Your task to perform on an android device: Open Wikipedia Image 0: 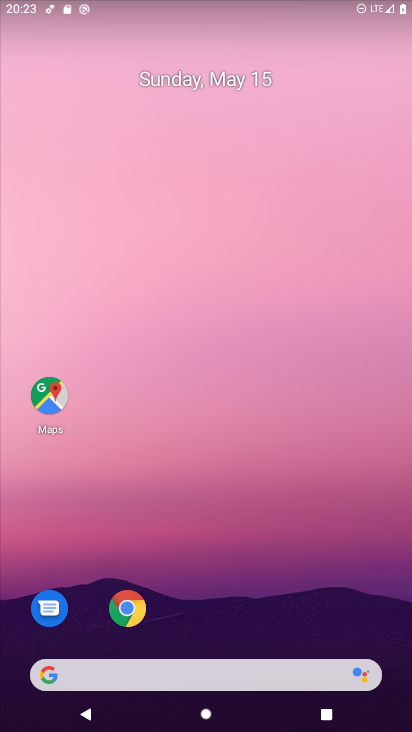
Step 0: click (129, 615)
Your task to perform on an android device: Open Wikipedia Image 1: 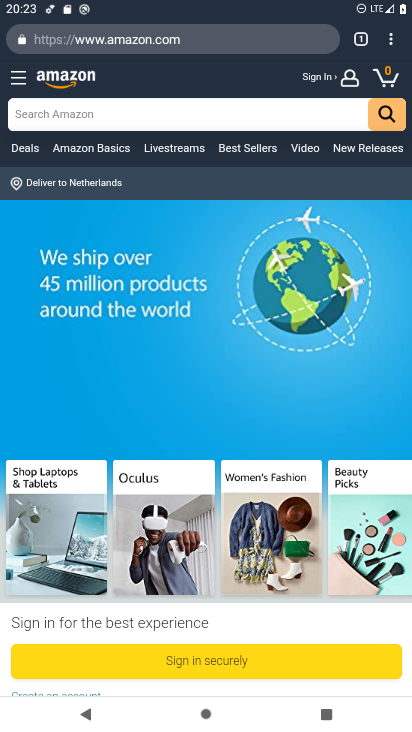
Step 1: press back button
Your task to perform on an android device: Open Wikipedia Image 2: 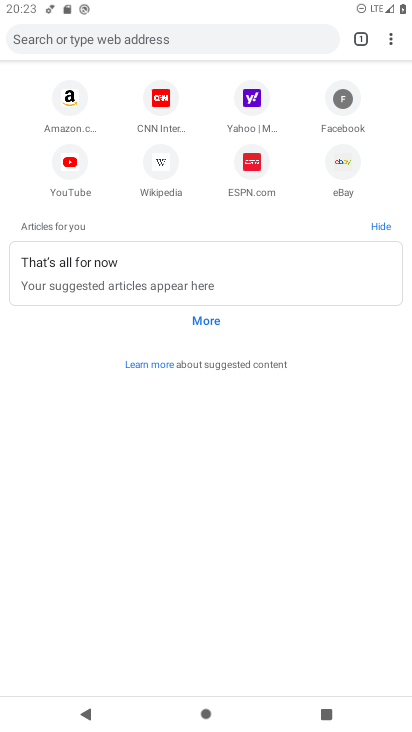
Step 2: click (168, 163)
Your task to perform on an android device: Open Wikipedia Image 3: 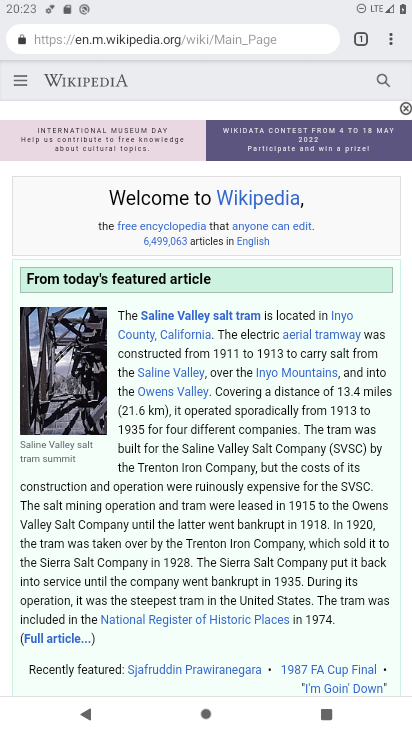
Step 3: task complete